Your task to perform on an android device: Open eBay Image 0: 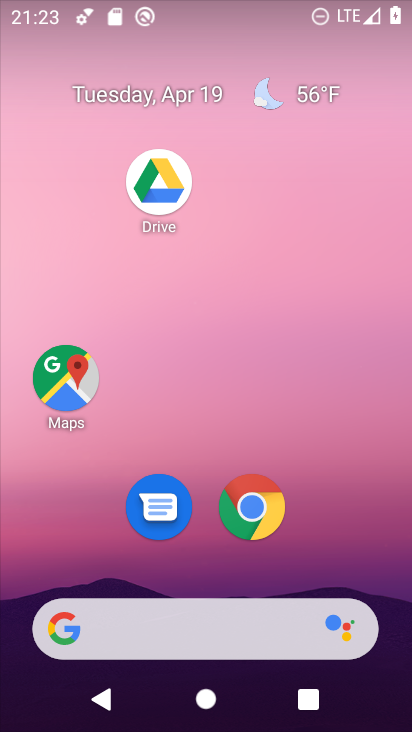
Step 0: click (236, 639)
Your task to perform on an android device: Open eBay Image 1: 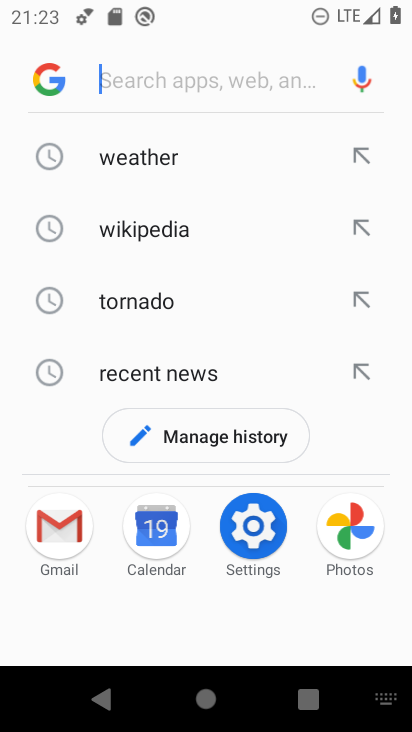
Step 1: type "eBay"
Your task to perform on an android device: Open eBay Image 2: 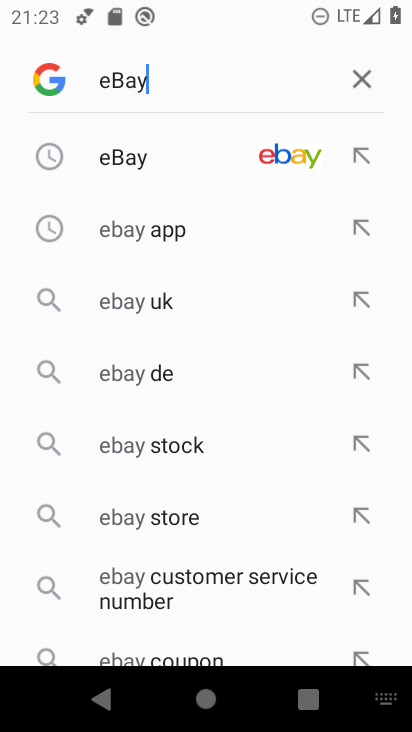
Step 2: click (276, 152)
Your task to perform on an android device: Open eBay Image 3: 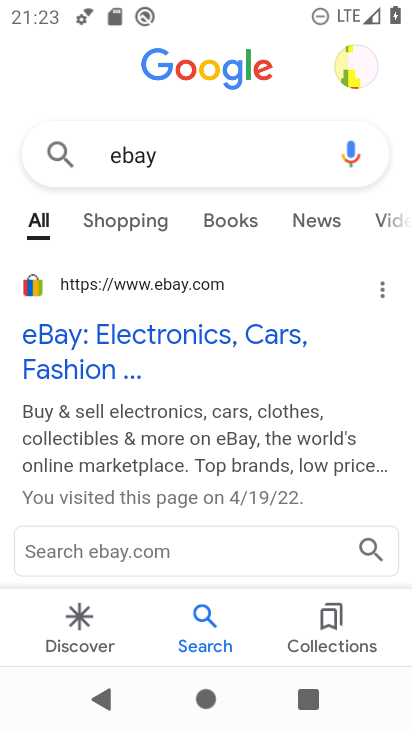
Step 3: click (190, 340)
Your task to perform on an android device: Open eBay Image 4: 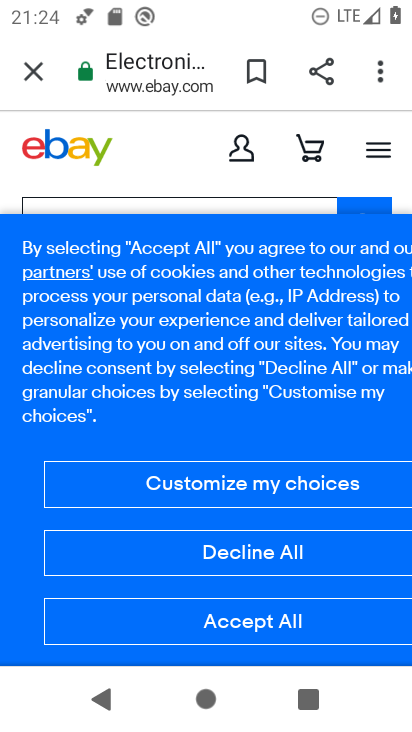
Step 4: task complete